Your task to perform on an android device: Open privacy settings Image 0: 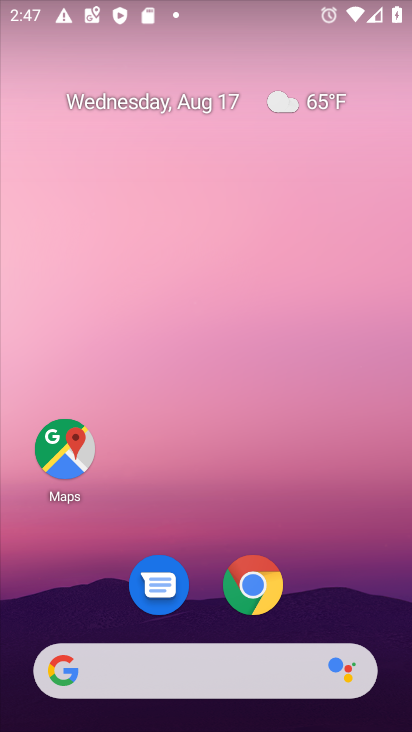
Step 0: drag from (200, 499) to (252, 0)
Your task to perform on an android device: Open privacy settings Image 1: 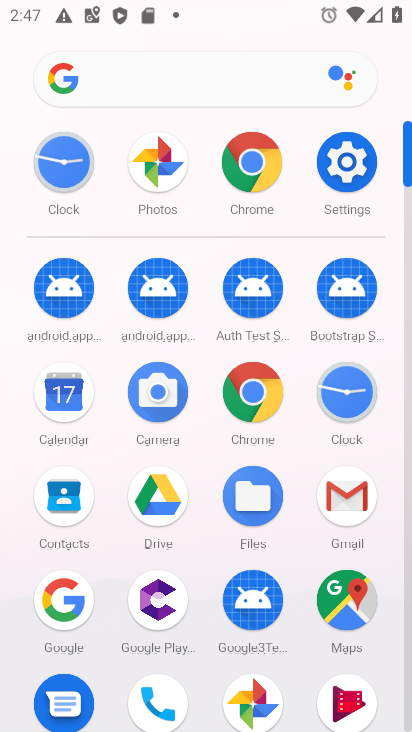
Step 1: click (343, 157)
Your task to perform on an android device: Open privacy settings Image 2: 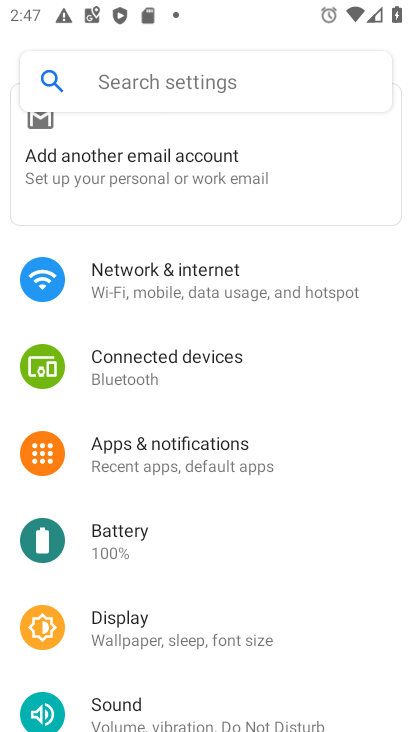
Step 2: drag from (221, 555) to (196, 1)
Your task to perform on an android device: Open privacy settings Image 3: 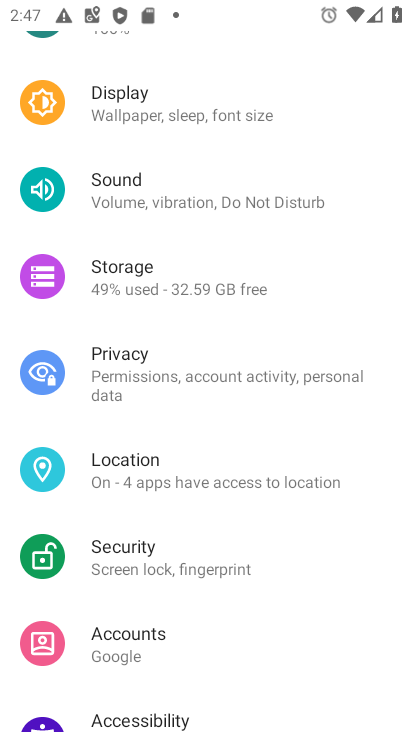
Step 3: click (216, 369)
Your task to perform on an android device: Open privacy settings Image 4: 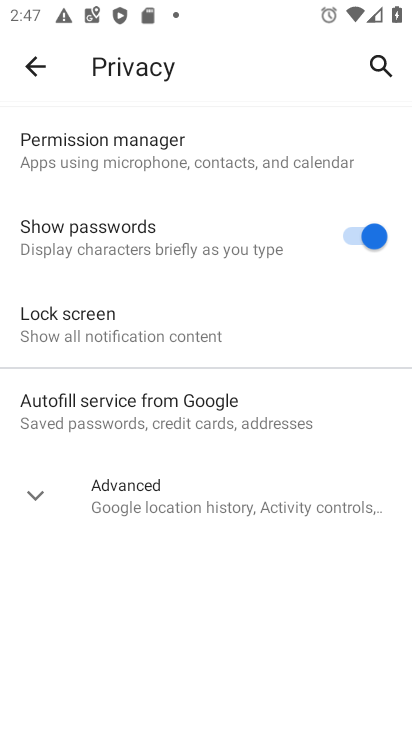
Step 4: task complete